Your task to perform on an android device: turn off smart reply in the gmail app Image 0: 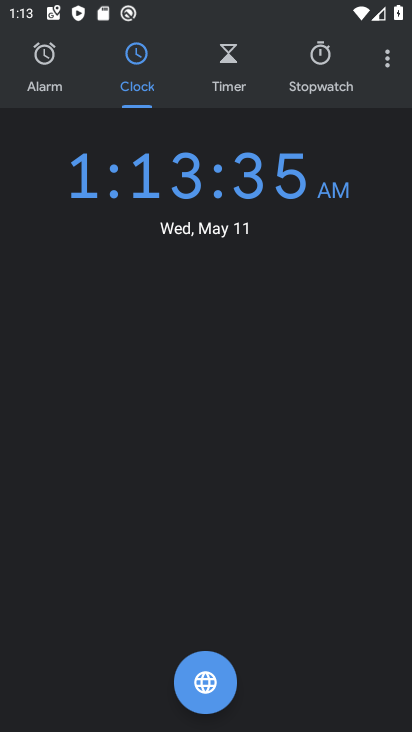
Step 0: press home button
Your task to perform on an android device: turn off smart reply in the gmail app Image 1: 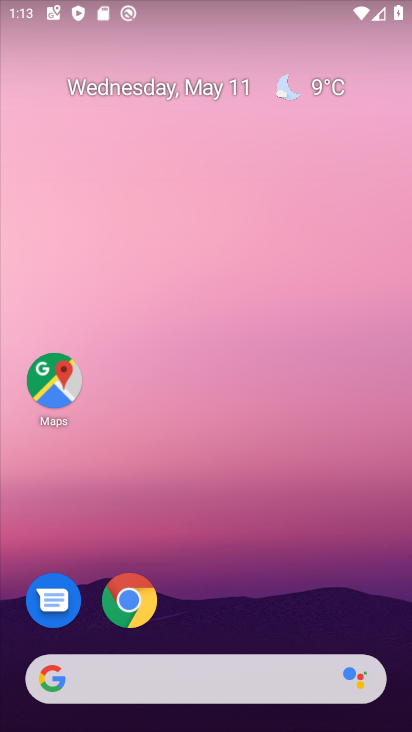
Step 1: drag from (244, 725) to (137, 37)
Your task to perform on an android device: turn off smart reply in the gmail app Image 2: 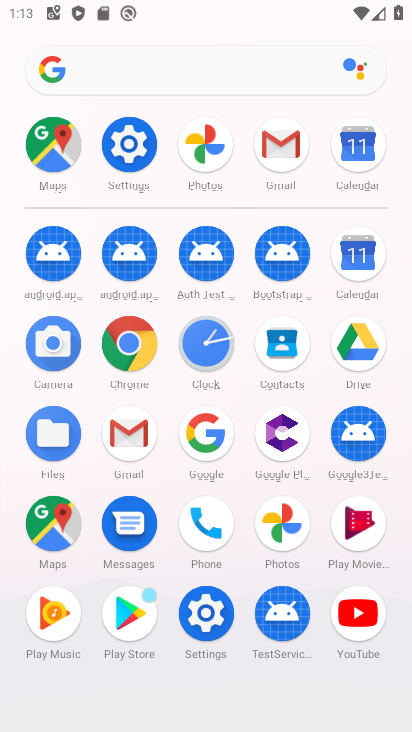
Step 2: click (286, 145)
Your task to perform on an android device: turn off smart reply in the gmail app Image 3: 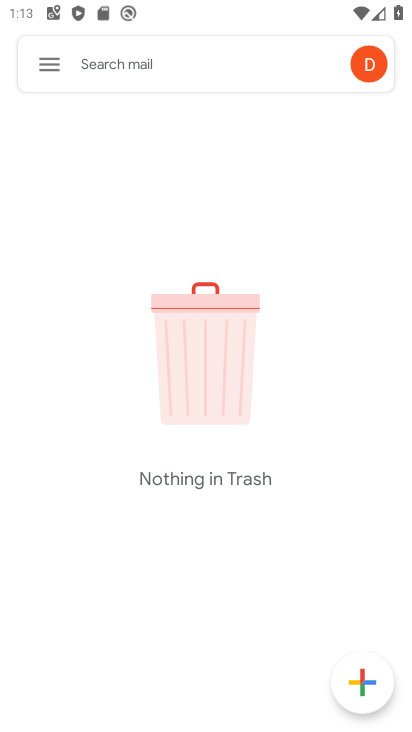
Step 3: click (44, 61)
Your task to perform on an android device: turn off smart reply in the gmail app Image 4: 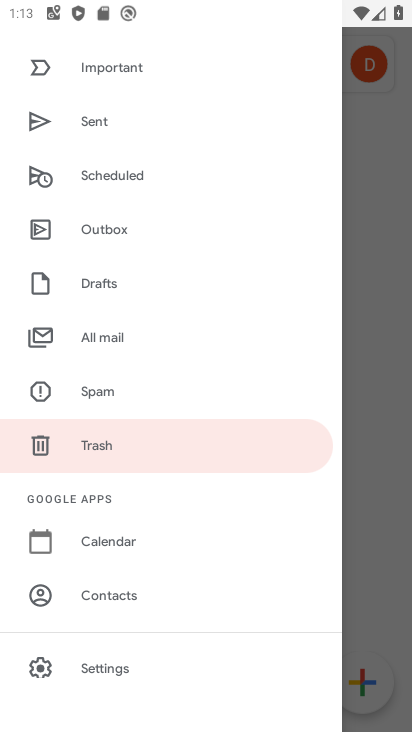
Step 4: click (115, 665)
Your task to perform on an android device: turn off smart reply in the gmail app Image 5: 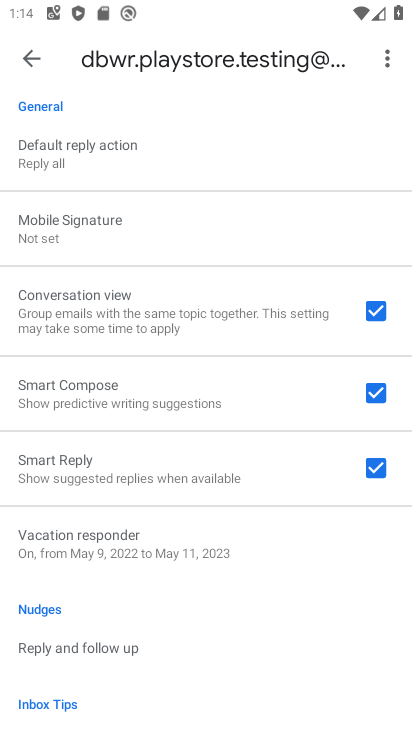
Step 5: click (378, 464)
Your task to perform on an android device: turn off smart reply in the gmail app Image 6: 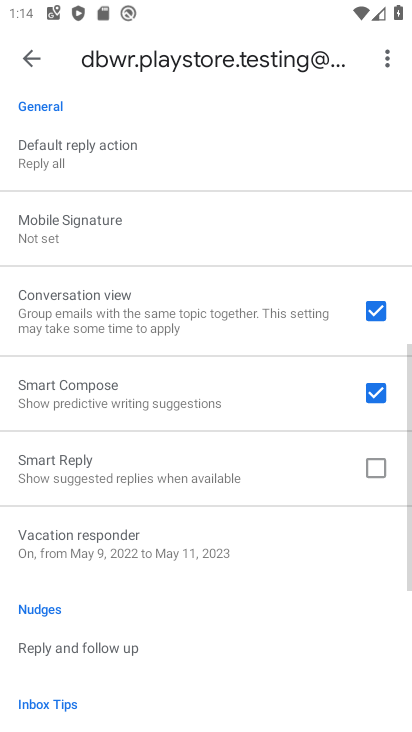
Step 6: task complete